Your task to perform on an android device: toggle location history Image 0: 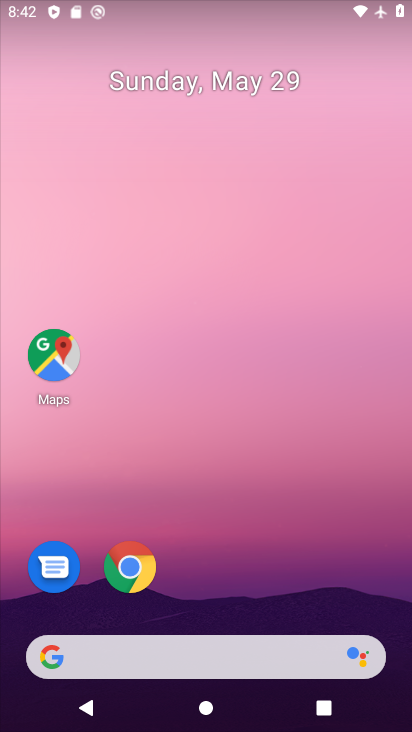
Step 0: drag from (387, 603) to (322, 38)
Your task to perform on an android device: toggle location history Image 1: 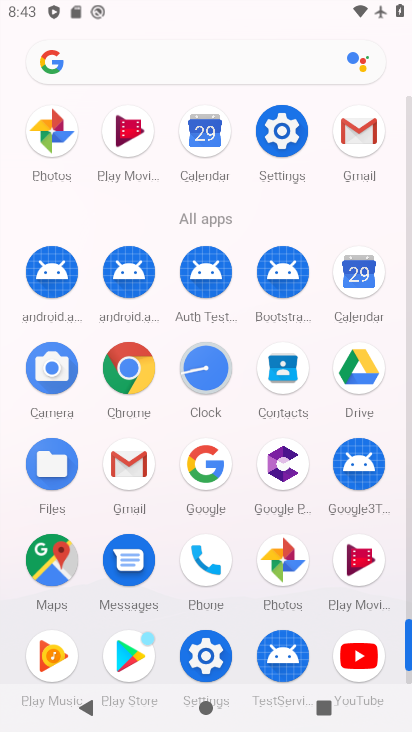
Step 1: click (207, 657)
Your task to perform on an android device: toggle location history Image 2: 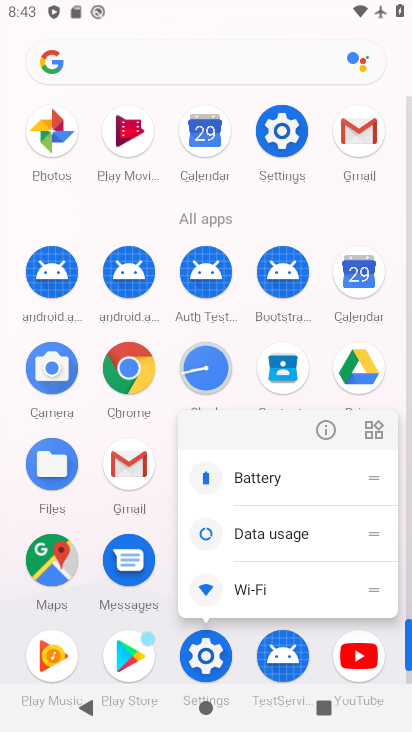
Step 2: click (205, 650)
Your task to perform on an android device: toggle location history Image 3: 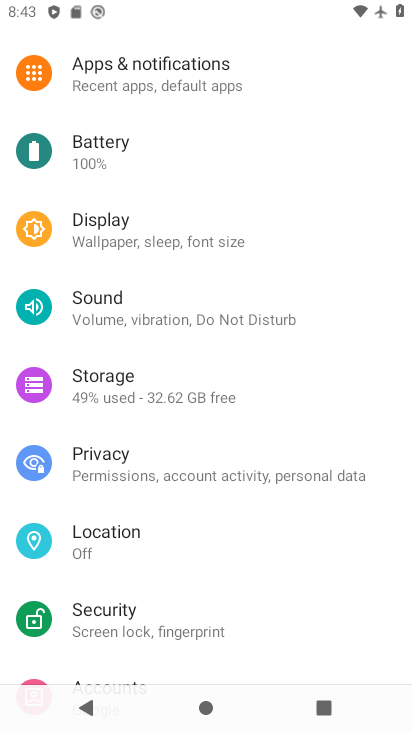
Step 3: click (107, 539)
Your task to perform on an android device: toggle location history Image 4: 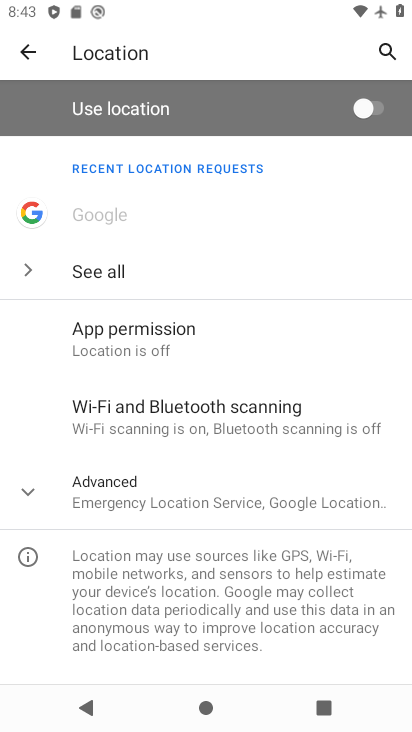
Step 4: click (23, 492)
Your task to perform on an android device: toggle location history Image 5: 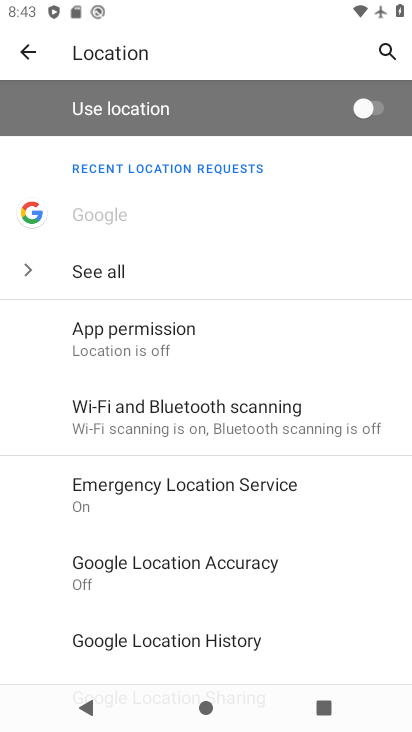
Step 5: drag from (297, 628) to (298, 379)
Your task to perform on an android device: toggle location history Image 6: 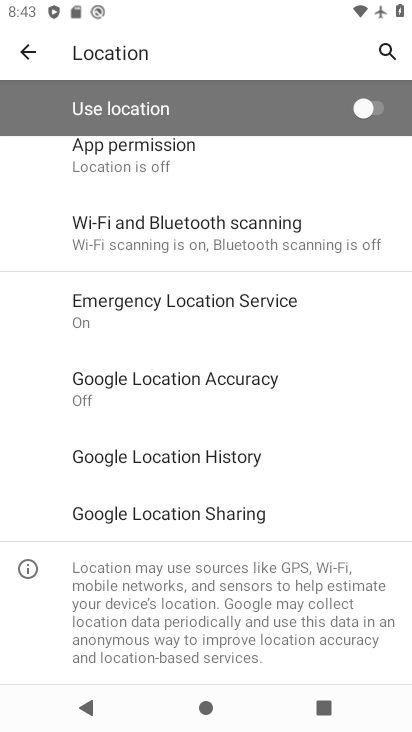
Step 6: click (121, 456)
Your task to perform on an android device: toggle location history Image 7: 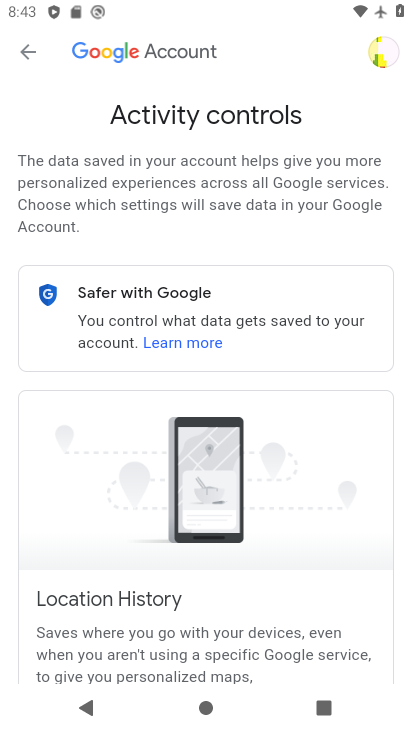
Step 7: drag from (242, 605) to (245, 178)
Your task to perform on an android device: toggle location history Image 8: 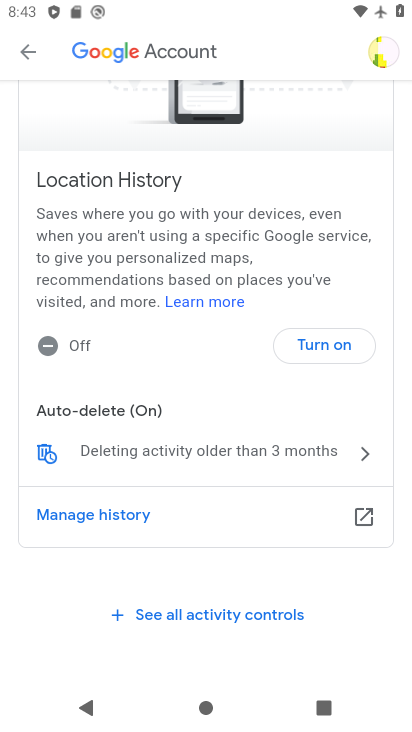
Step 8: click (326, 341)
Your task to perform on an android device: toggle location history Image 9: 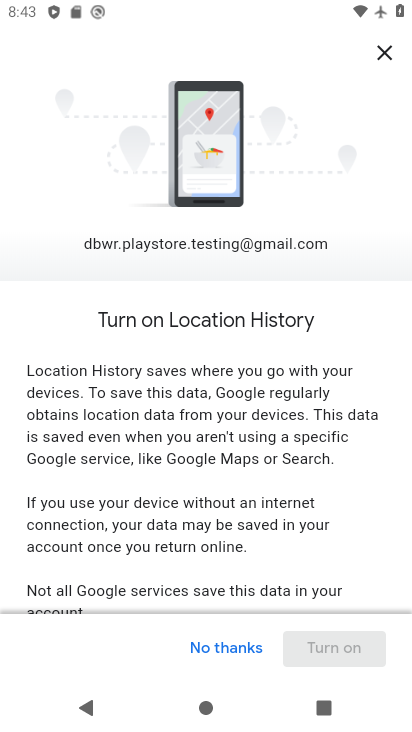
Step 9: drag from (260, 586) to (256, 55)
Your task to perform on an android device: toggle location history Image 10: 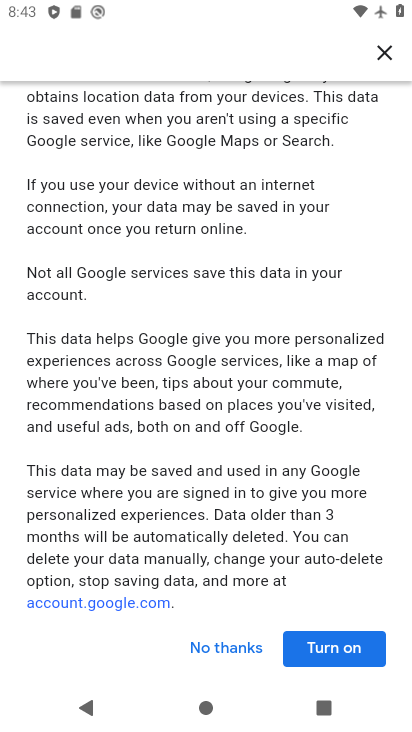
Step 10: click (345, 660)
Your task to perform on an android device: toggle location history Image 11: 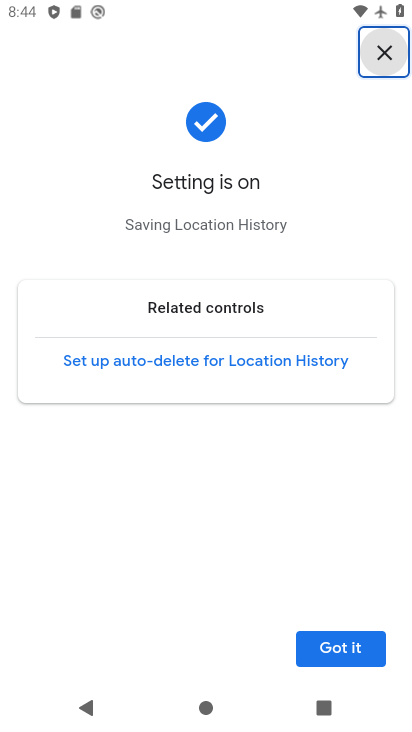
Step 11: click (342, 648)
Your task to perform on an android device: toggle location history Image 12: 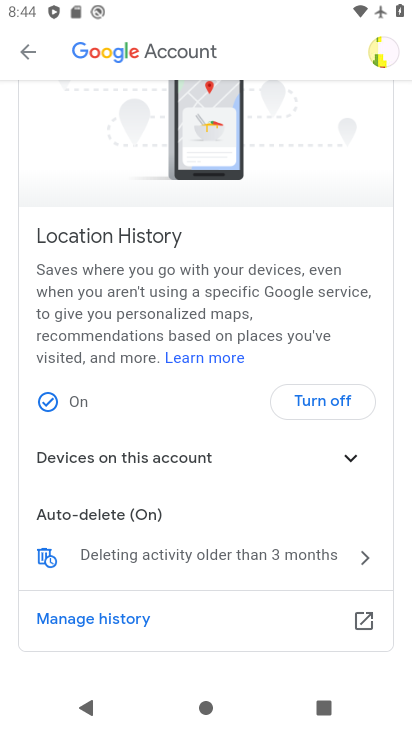
Step 12: task complete